Your task to perform on an android device: Open location settings Image 0: 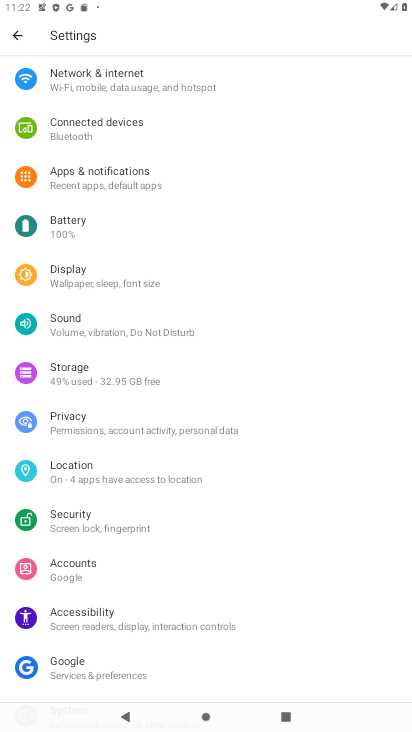
Step 0: click (130, 474)
Your task to perform on an android device: Open location settings Image 1: 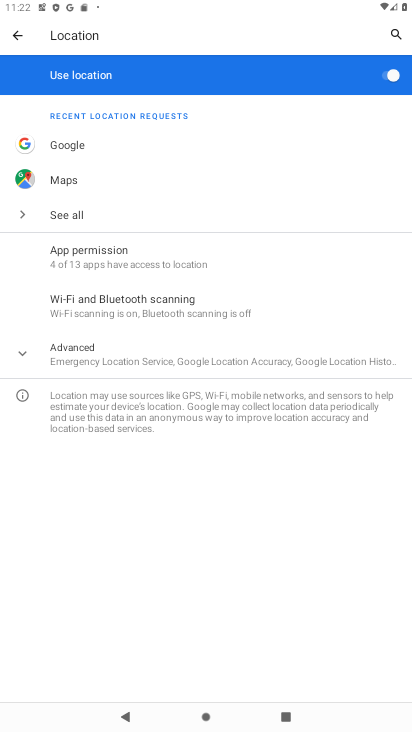
Step 1: task complete